Your task to perform on an android device: Open Google Chrome and open the bookmarks view Image 0: 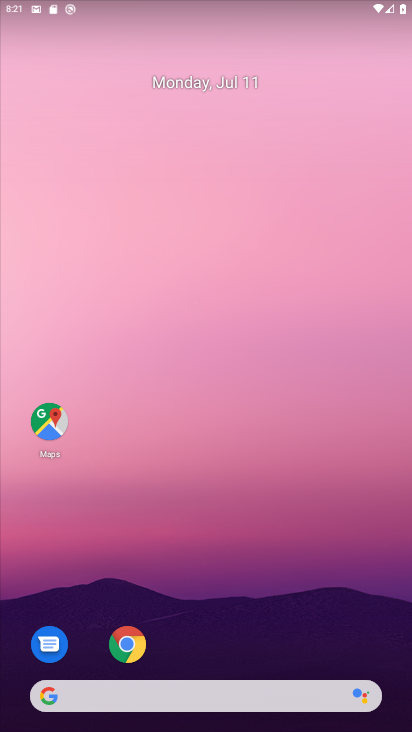
Step 0: drag from (214, 666) to (328, 0)
Your task to perform on an android device: Open Google Chrome and open the bookmarks view Image 1: 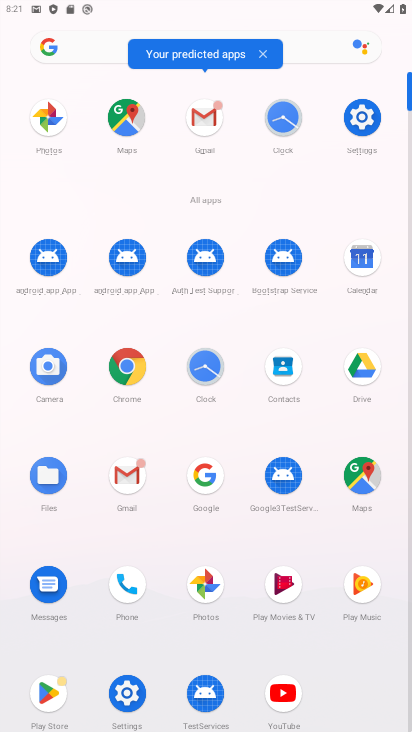
Step 1: click (133, 352)
Your task to perform on an android device: Open Google Chrome and open the bookmarks view Image 2: 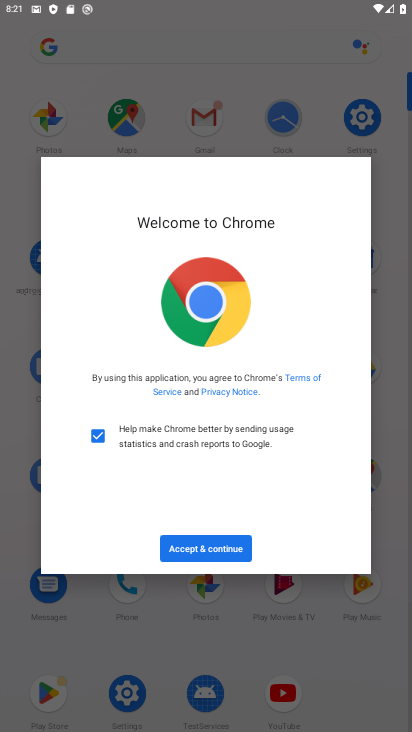
Step 2: click (193, 548)
Your task to perform on an android device: Open Google Chrome and open the bookmarks view Image 3: 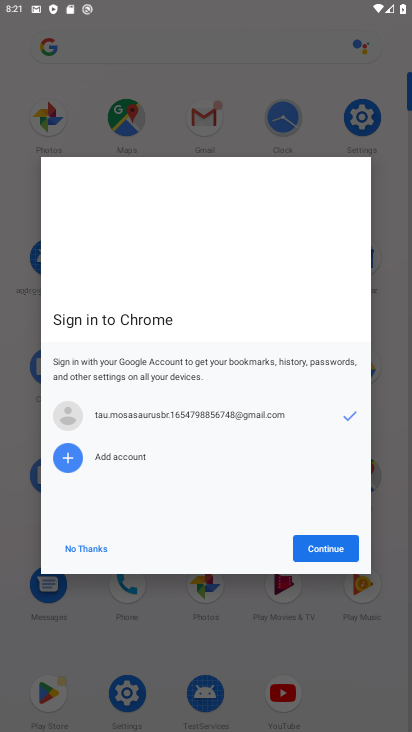
Step 3: click (325, 539)
Your task to perform on an android device: Open Google Chrome and open the bookmarks view Image 4: 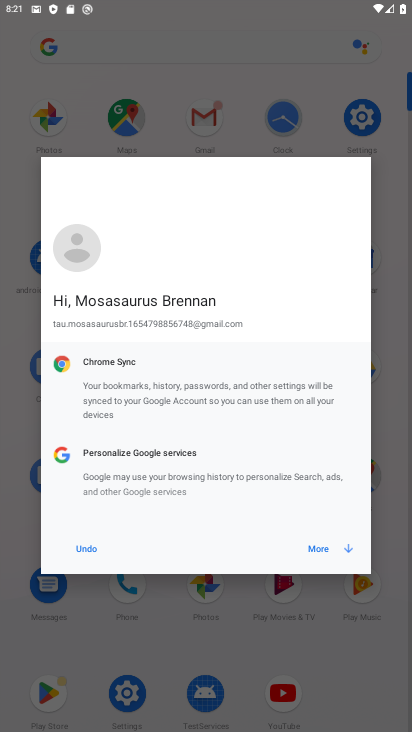
Step 4: click (330, 545)
Your task to perform on an android device: Open Google Chrome and open the bookmarks view Image 5: 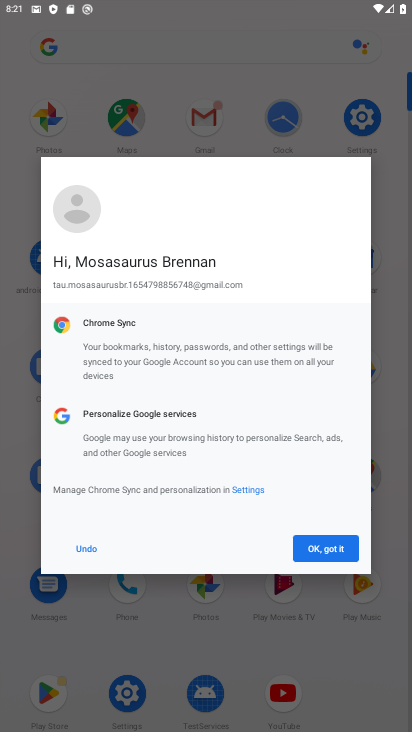
Step 5: click (326, 545)
Your task to perform on an android device: Open Google Chrome and open the bookmarks view Image 6: 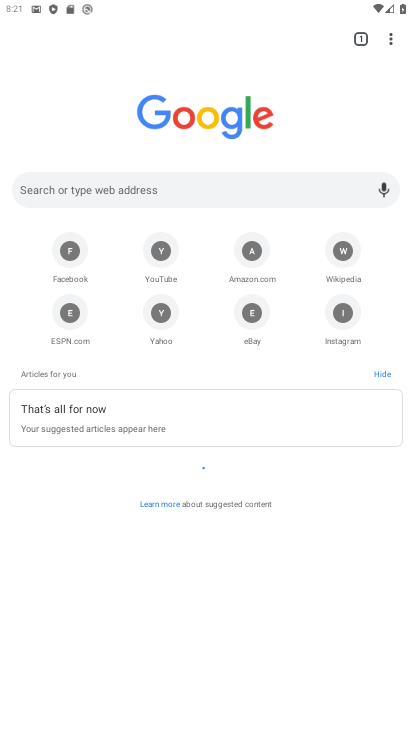
Step 6: task complete